Your task to perform on an android device: Open Yahoo.com Image 0: 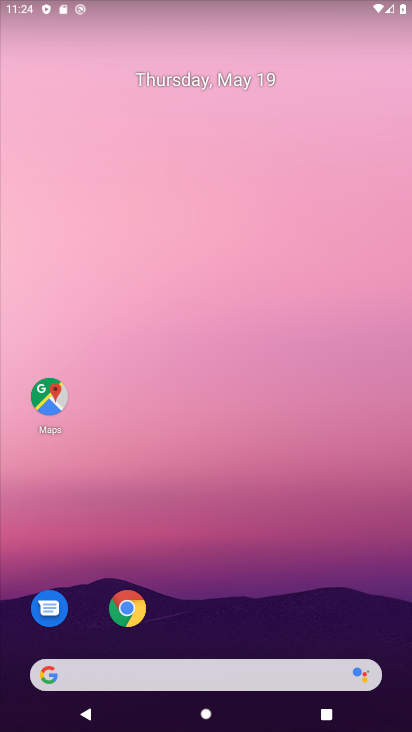
Step 0: drag from (383, 612) to (373, 122)
Your task to perform on an android device: Open Yahoo.com Image 1: 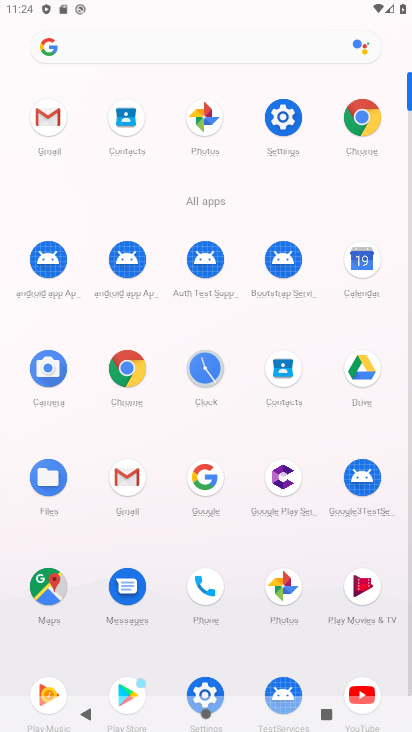
Step 1: click (361, 130)
Your task to perform on an android device: Open Yahoo.com Image 2: 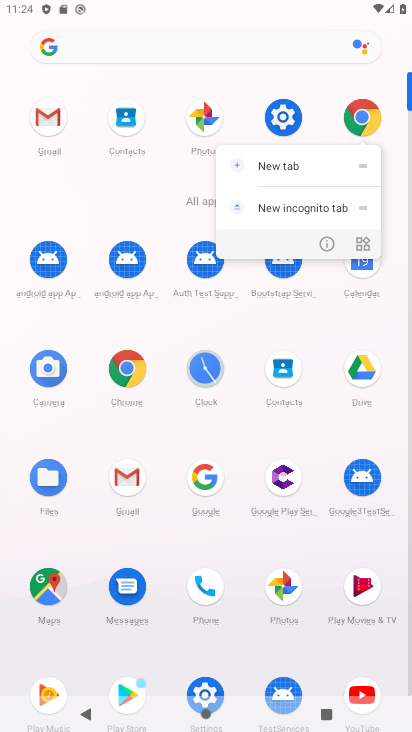
Step 2: click (359, 119)
Your task to perform on an android device: Open Yahoo.com Image 3: 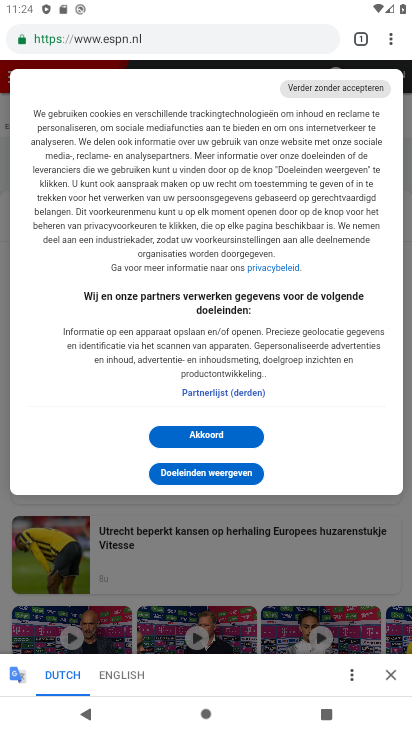
Step 3: press back button
Your task to perform on an android device: Open Yahoo.com Image 4: 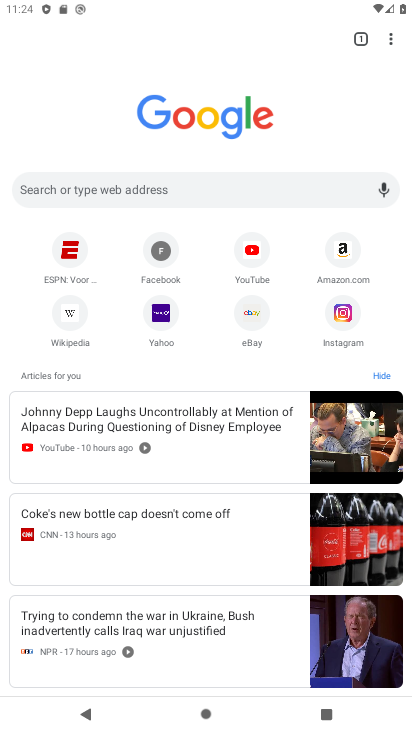
Step 4: click (154, 321)
Your task to perform on an android device: Open Yahoo.com Image 5: 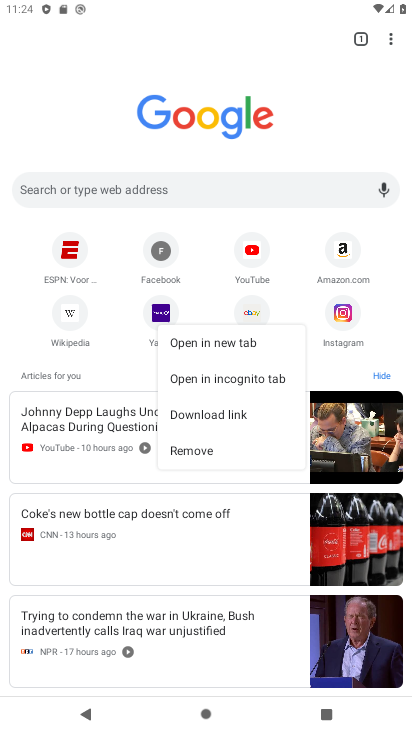
Step 5: click (178, 305)
Your task to perform on an android device: Open Yahoo.com Image 6: 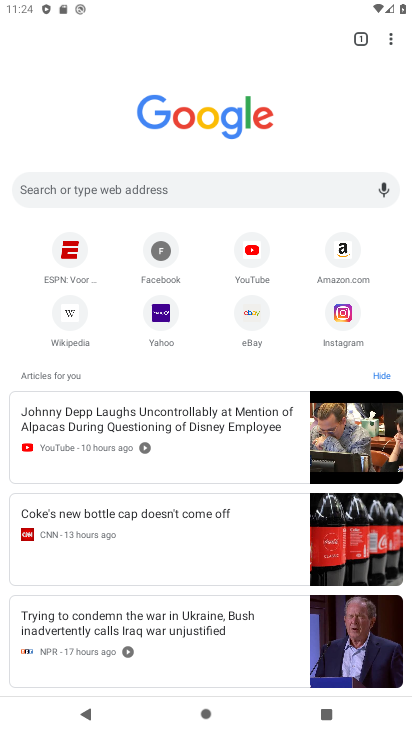
Step 6: click (178, 336)
Your task to perform on an android device: Open Yahoo.com Image 7: 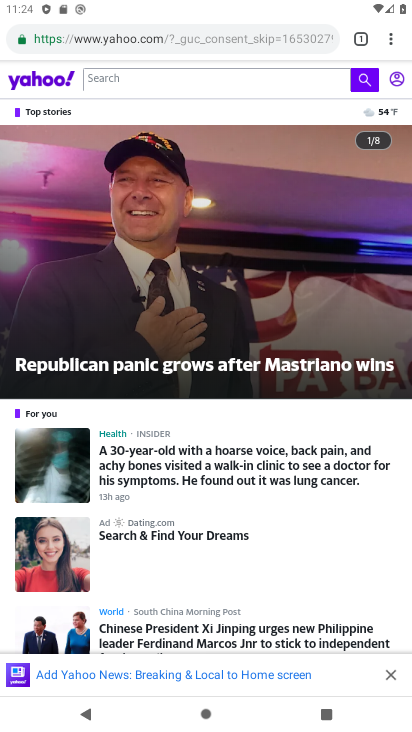
Step 7: task complete